Your task to perform on an android device: see sites visited before in the chrome app Image 0: 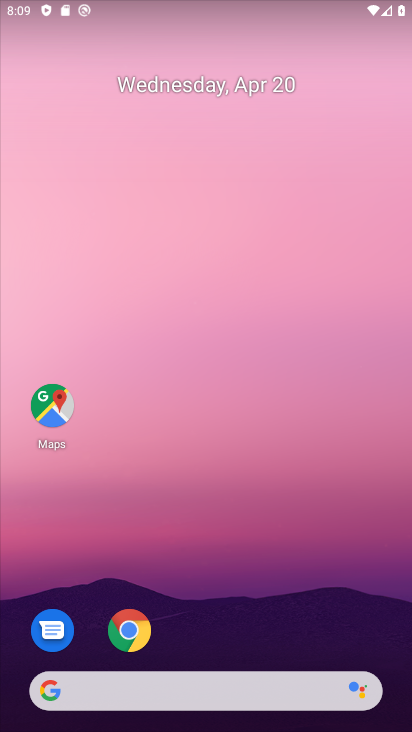
Step 0: click (125, 624)
Your task to perform on an android device: see sites visited before in the chrome app Image 1: 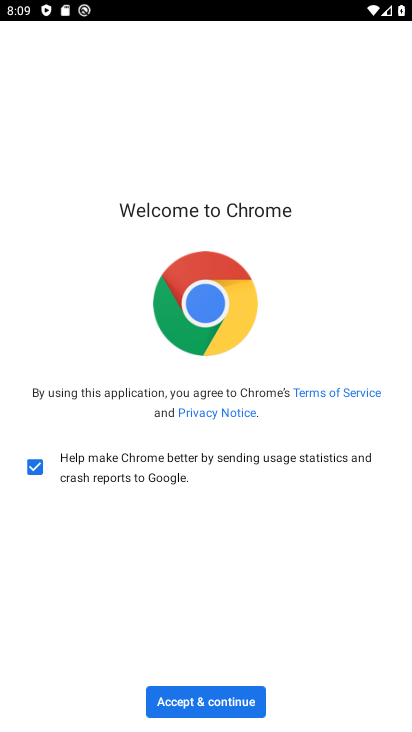
Step 1: click (175, 697)
Your task to perform on an android device: see sites visited before in the chrome app Image 2: 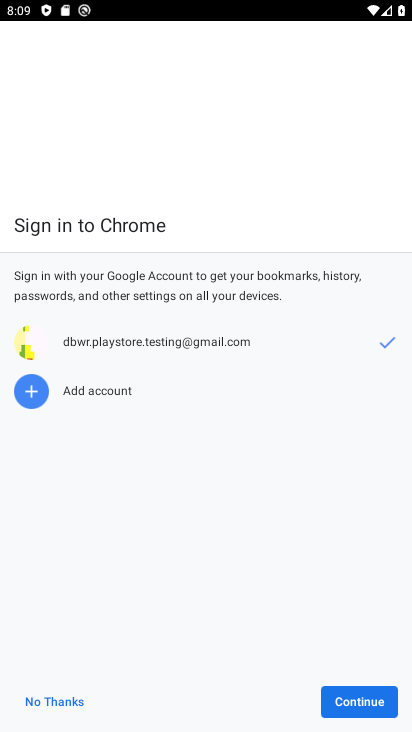
Step 2: click (381, 701)
Your task to perform on an android device: see sites visited before in the chrome app Image 3: 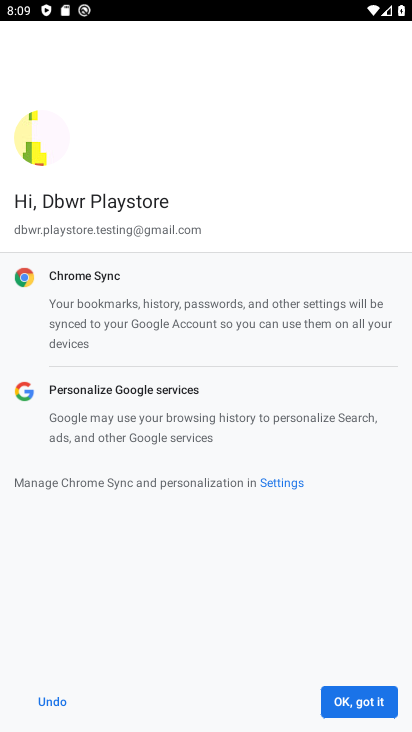
Step 3: click (381, 701)
Your task to perform on an android device: see sites visited before in the chrome app Image 4: 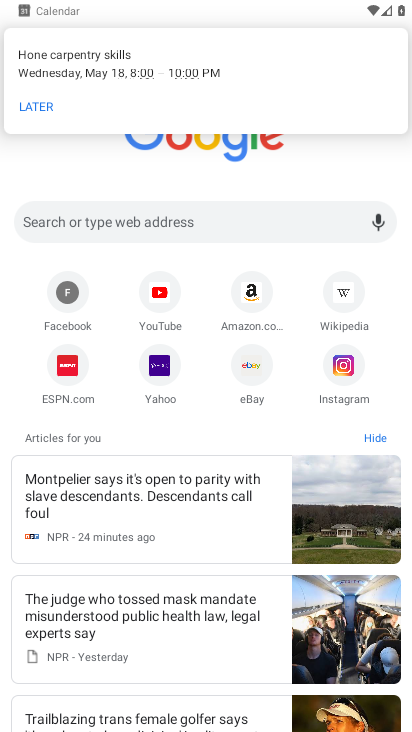
Step 4: click (33, 99)
Your task to perform on an android device: see sites visited before in the chrome app Image 5: 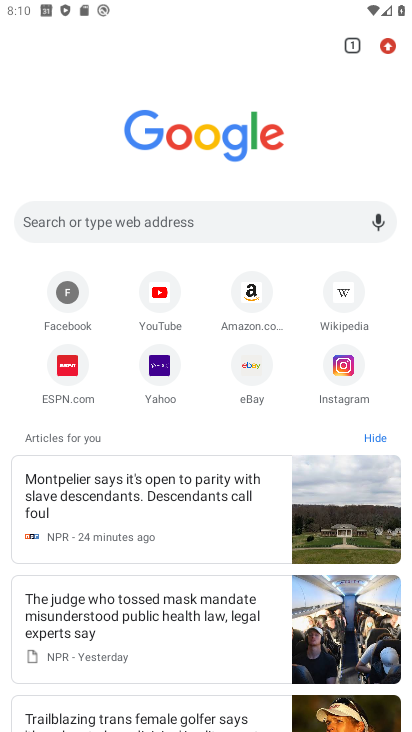
Step 5: click (389, 49)
Your task to perform on an android device: see sites visited before in the chrome app Image 6: 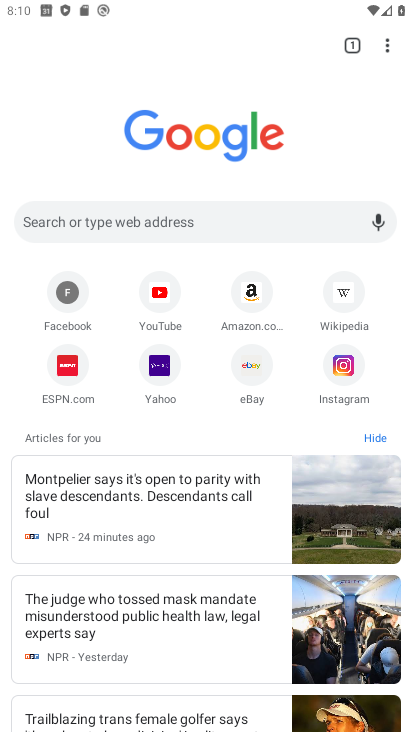
Step 6: click (389, 49)
Your task to perform on an android device: see sites visited before in the chrome app Image 7: 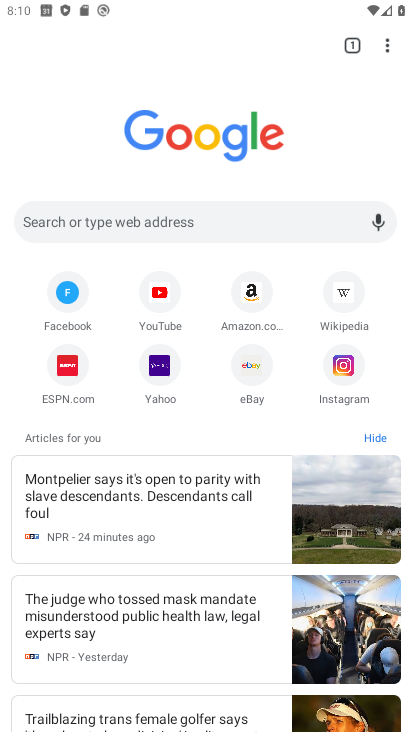
Step 7: click (389, 49)
Your task to perform on an android device: see sites visited before in the chrome app Image 8: 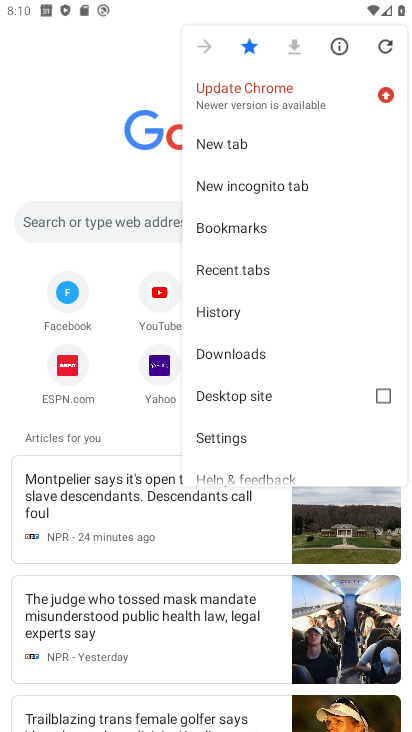
Step 8: click (232, 308)
Your task to perform on an android device: see sites visited before in the chrome app Image 9: 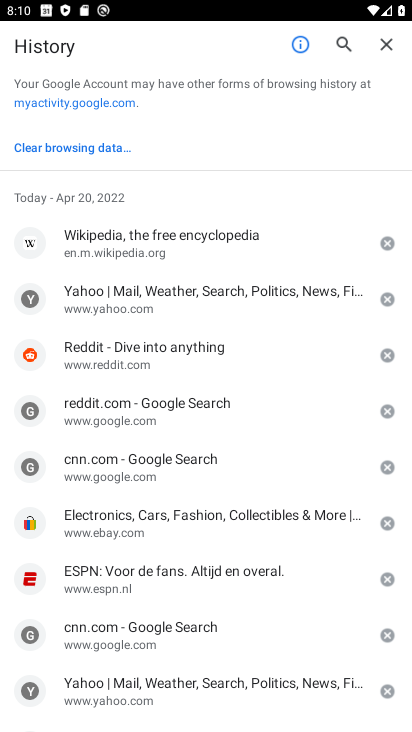
Step 9: task complete